Your task to perform on an android device: When is my next meeting? Image 0: 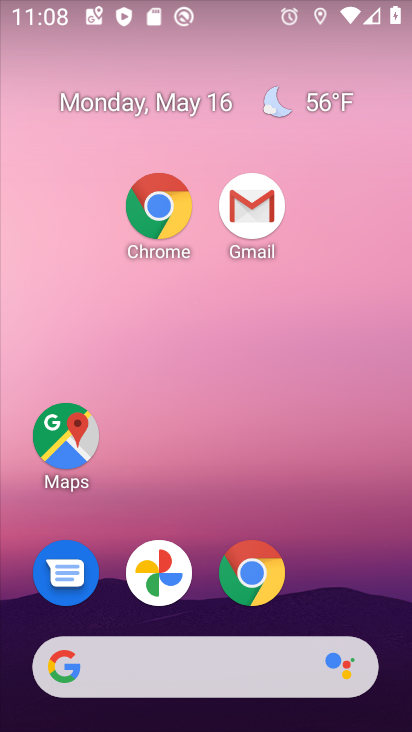
Step 0: drag from (271, 362) to (190, 187)
Your task to perform on an android device: When is my next meeting? Image 1: 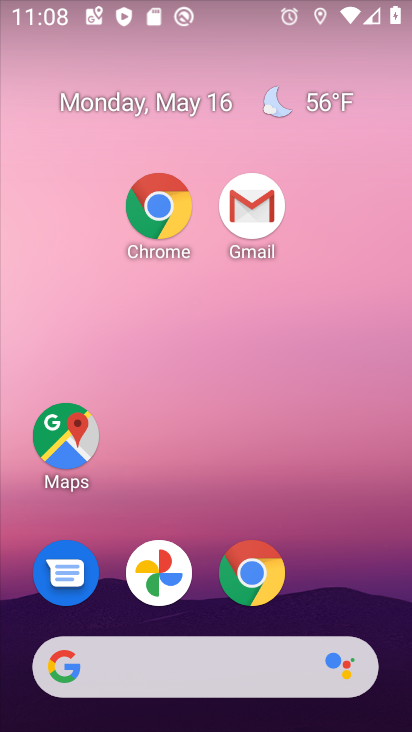
Step 1: drag from (324, 615) to (118, 151)
Your task to perform on an android device: When is my next meeting? Image 2: 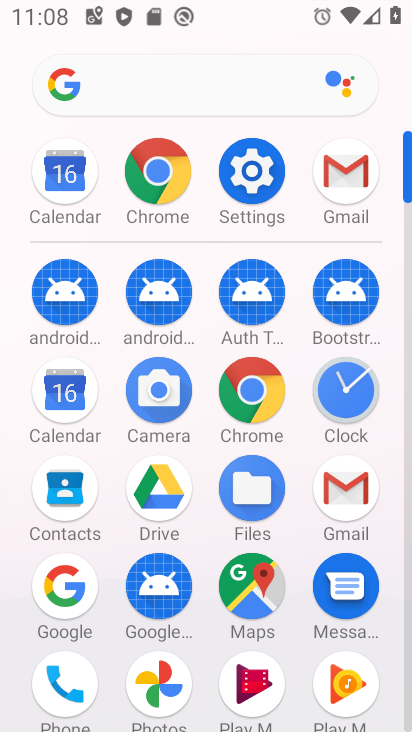
Step 2: click (65, 403)
Your task to perform on an android device: When is my next meeting? Image 3: 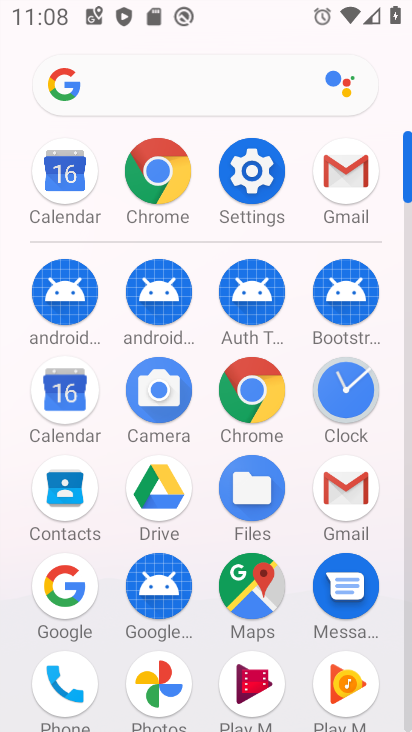
Step 3: click (65, 400)
Your task to perform on an android device: When is my next meeting? Image 4: 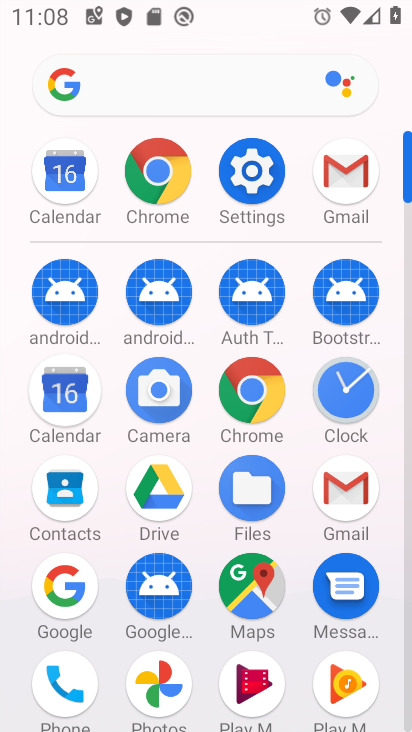
Step 4: click (65, 400)
Your task to perform on an android device: When is my next meeting? Image 5: 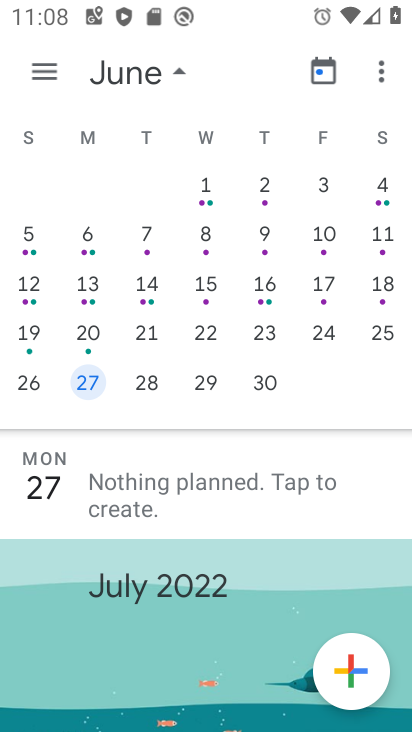
Step 5: drag from (66, 291) to (340, 281)
Your task to perform on an android device: When is my next meeting? Image 6: 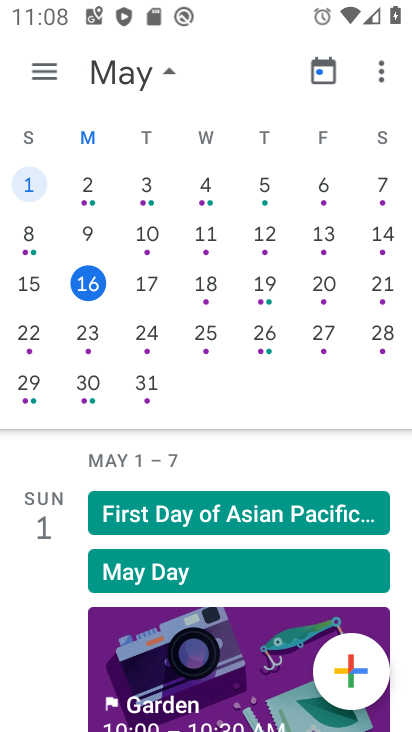
Step 6: drag from (151, 295) to (407, 233)
Your task to perform on an android device: When is my next meeting? Image 7: 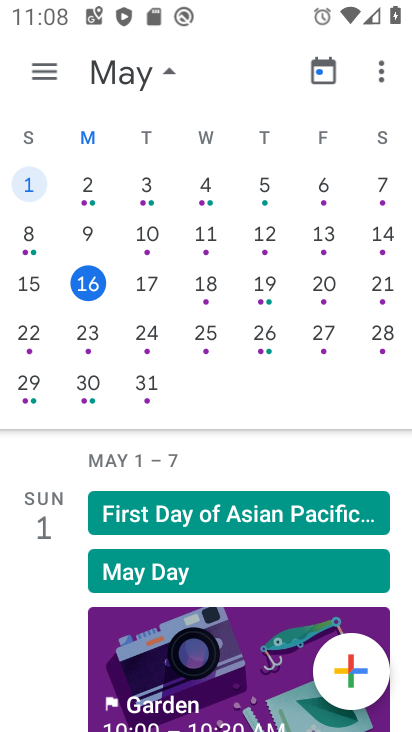
Step 7: click (153, 278)
Your task to perform on an android device: When is my next meeting? Image 8: 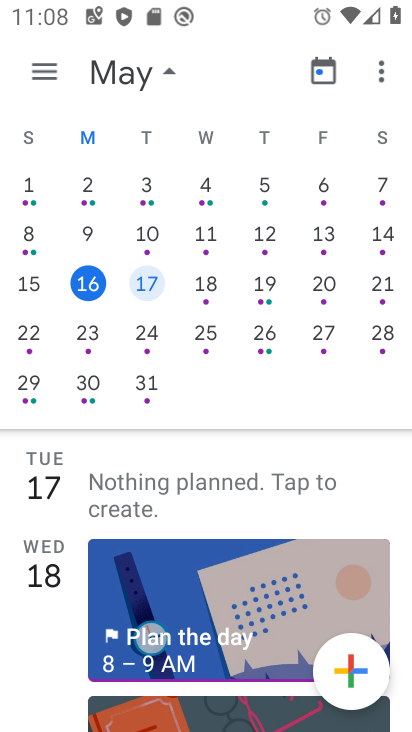
Step 8: click (145, 272)
Your task to perform on an android device: When is my next meeting? Image 9: 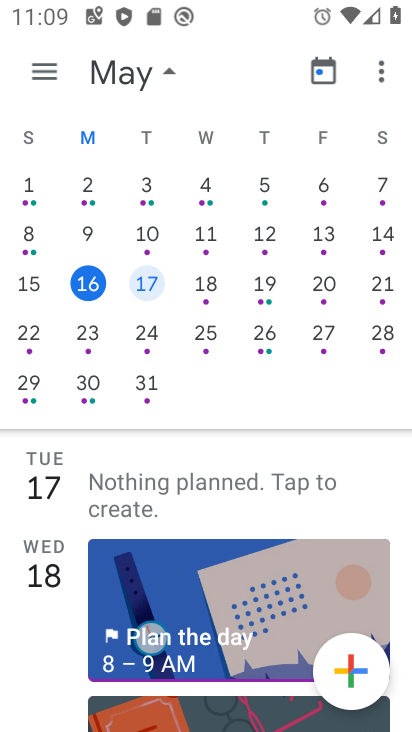
Step 9: drag from (142, 541) to (132, 165)
Your task to perform on an android device: When is my next meeting? Image 10: 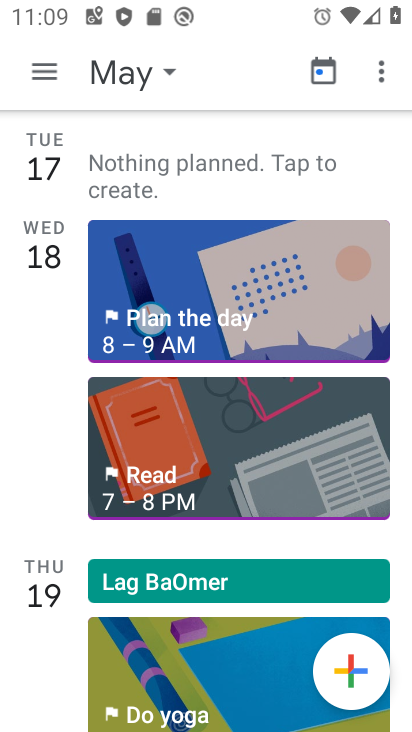
Step 10: drag from (200, 620) to (185, 72)
Your task to perform on an android device: When is my next meeting? Image 11: 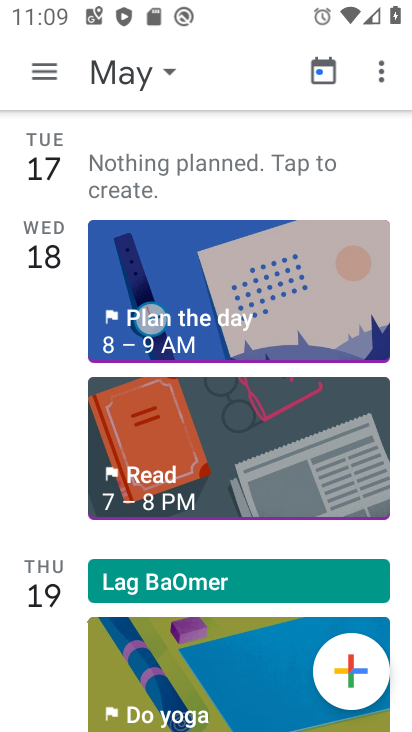
Step 11: drag from (184, 454) to (131, 56)
Your task to perform on an android device: When is my next meeting? Image 12: 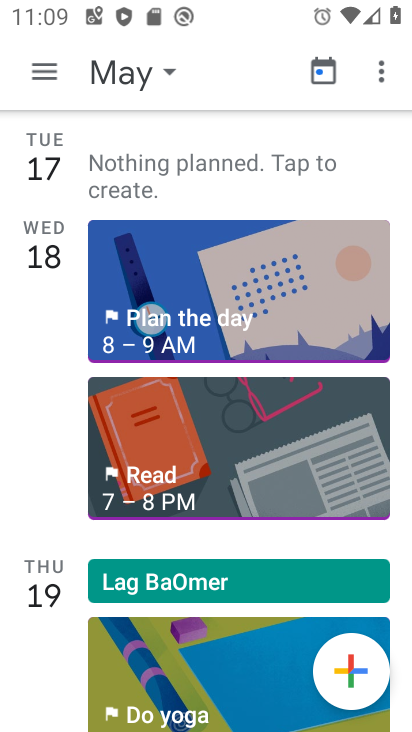
Step 12: drag from (183, 424) to (143, 105)
Your task to perform on an android device: When is my next meeting? Image 13: 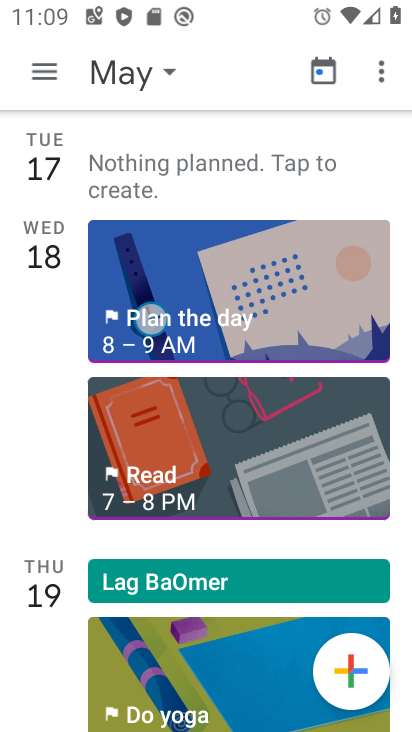
Step 13: drag from (97, 526) to (161, 98)
Your task to perform on an android device: When is my next meeting? Image 14: 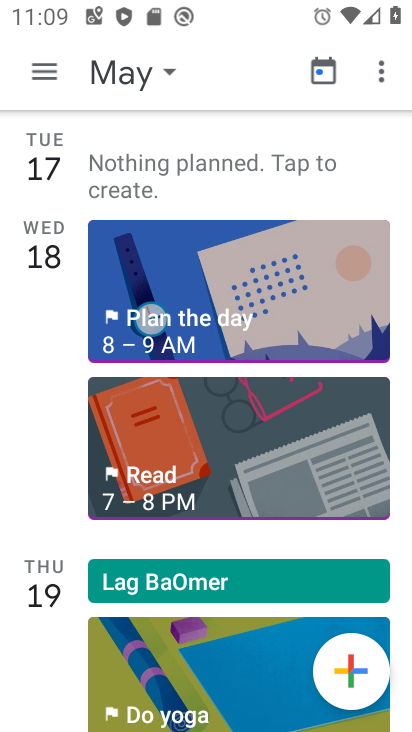
Step 14: drag from (141, 449) to (139, 14)
Your task to perform on an android device: When is my next meeting? Image 15: 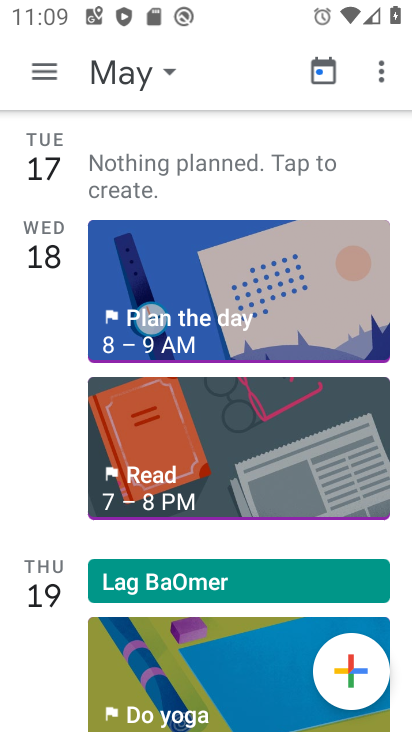
Step 15: drag from (175, 508) to (163, 3)
Your task to perform on an android device: When is my next meeting? Image 16: 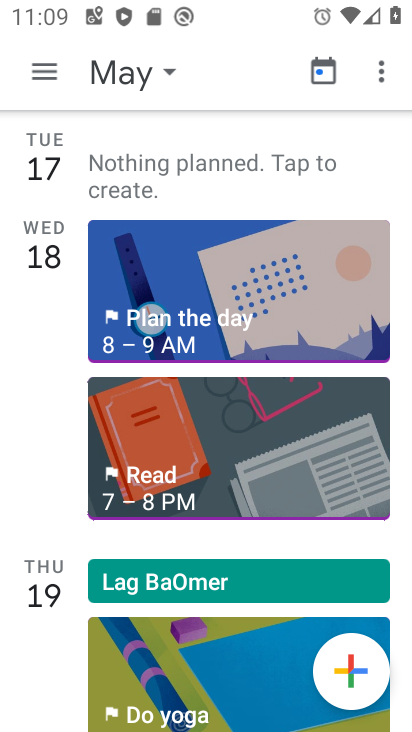
Step 16: drag from (149, 499) to (74, 171)
Your task to perform on an android device: When is my next meeting? Image 17: 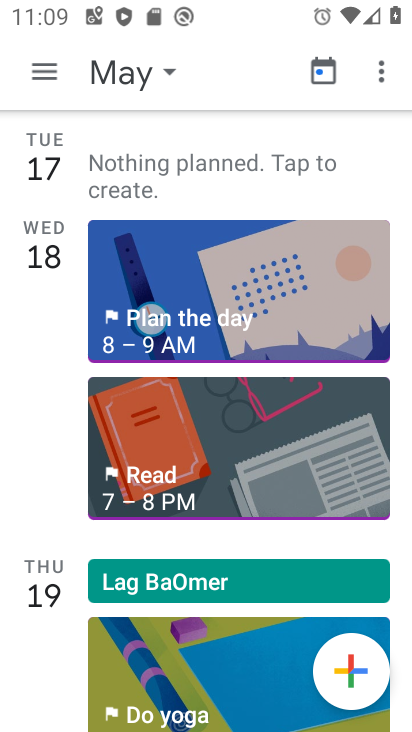
Step 17: drag from (179, 506) to (179, 218)
Your task to perform on an android device: When is my next meeting? Image 18: 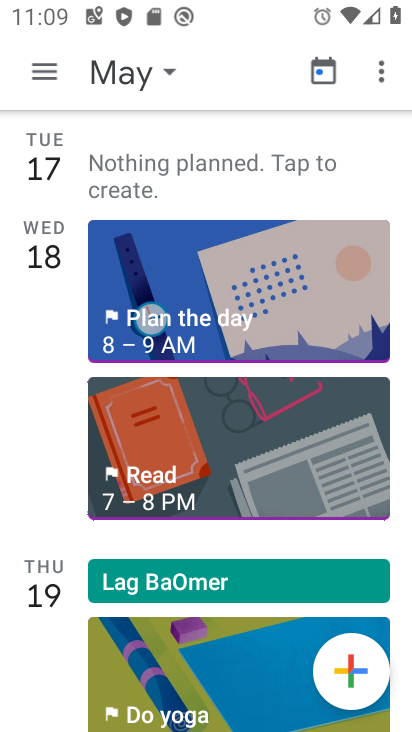
Step 18: drag from (174, 457) to (158, 251)
Your task to perform on an android device: When is my next meeting? Image 19: 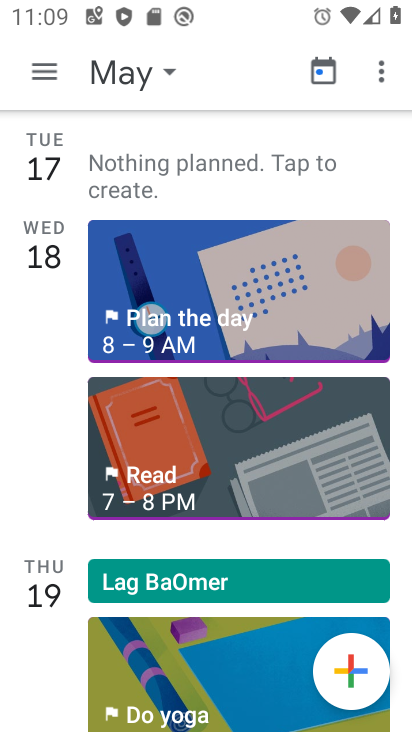
Step 19: drag from (170, 507) to (170, 114)
Your task to perform on an android device: When is my next meeting? Image 20: 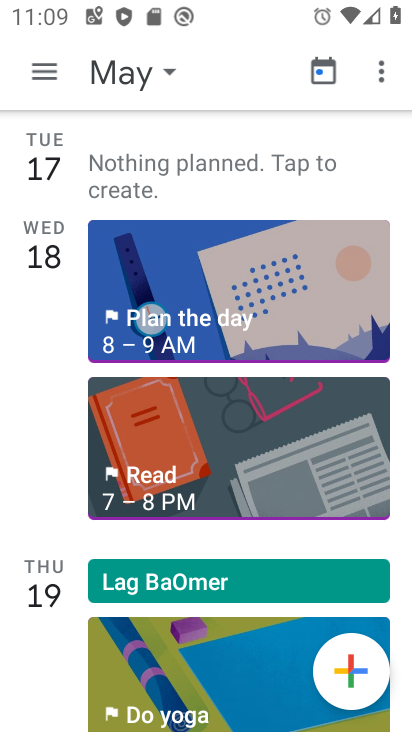
Step 20: click (110, 631)
Your task to perform on an android device: When is my next meeting? Image 21: 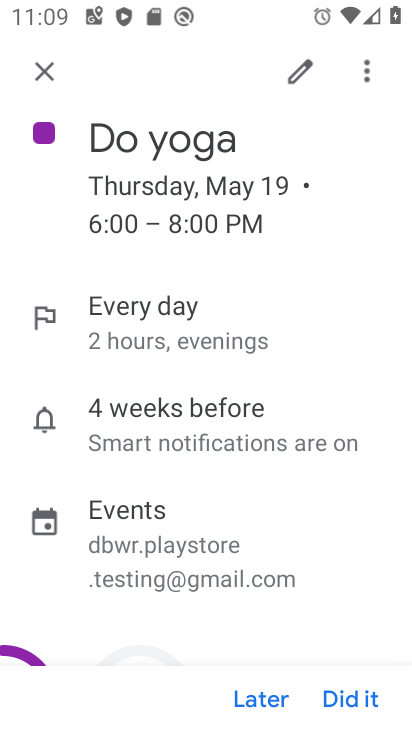
Step 21: task complete